Your task to perform on an android device: Open the map Image 0: 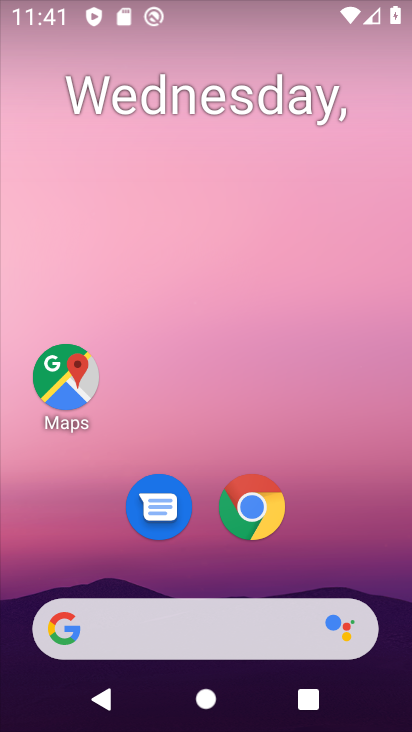
Step 0: click (83, 381)
Your task to perform on an android device: Open the map Image 1: 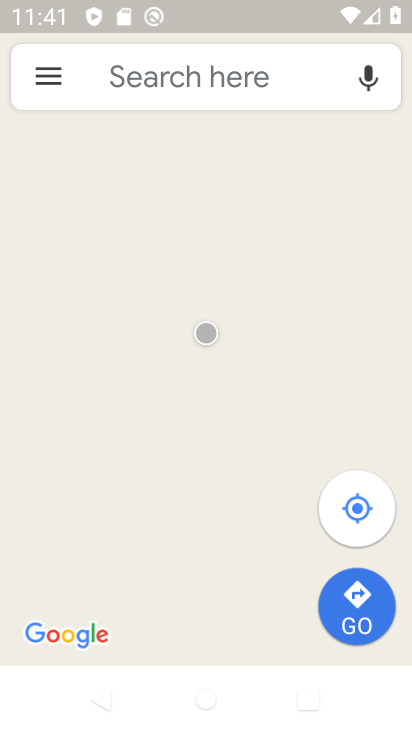
Step 1: task complete